Your task to perform on an android device: toggle sleep mode Image 0: 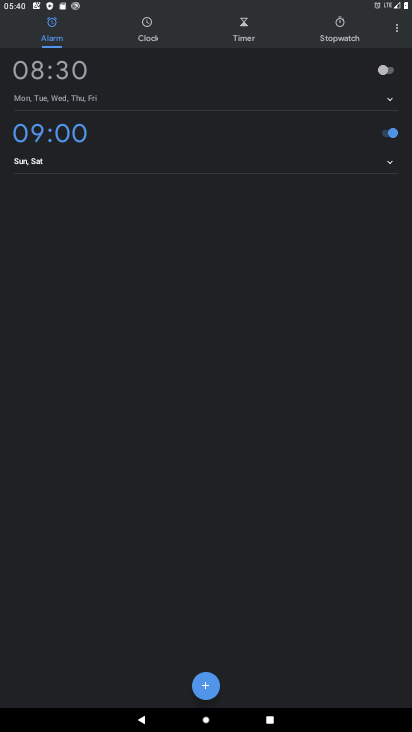
Step 0: press home button
Your task to perform on an android device: toggle sleep mode Image 1: 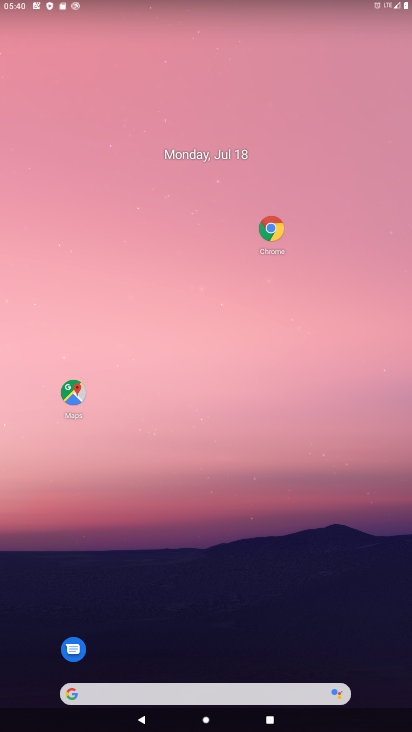
Step 1: drag from (189, 617) to (169, 23)
Your task to perform on an android device: toggle sleep mode Image 2: 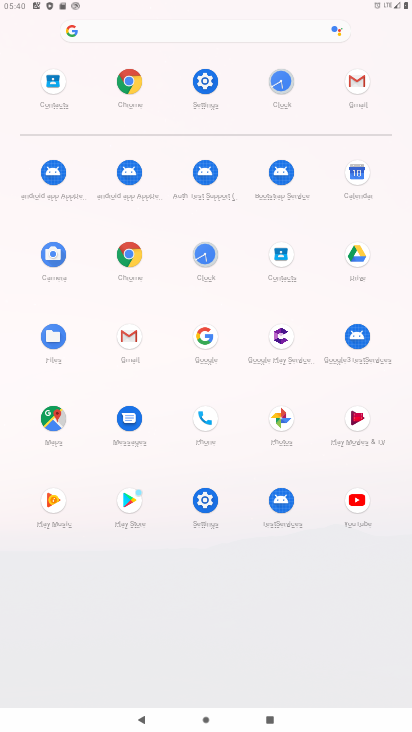
Step 2: click (355, 77)
Your task to perform on an android device: toggle sleep mode Image 3: 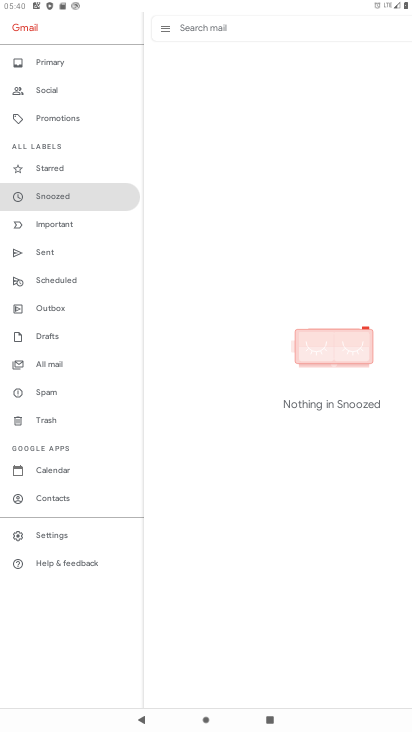
Step 3: task complete